Your task to perform on an android device: turn on notifications settings in the gmail app Image 0: 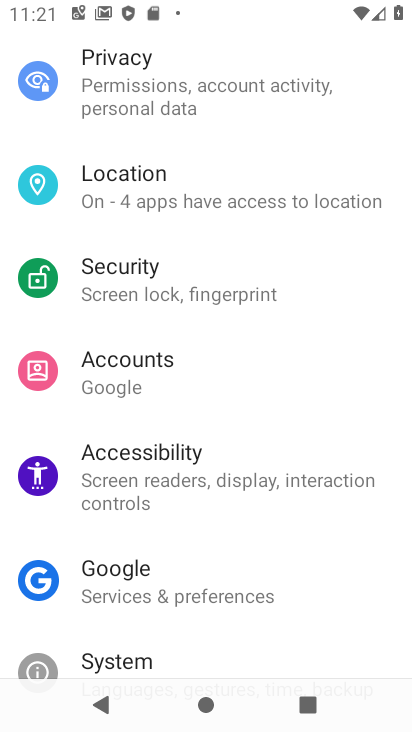
Step 0: press home button
Your task to perform on an android device: turn on notifications settings in the gmail app Image 1: 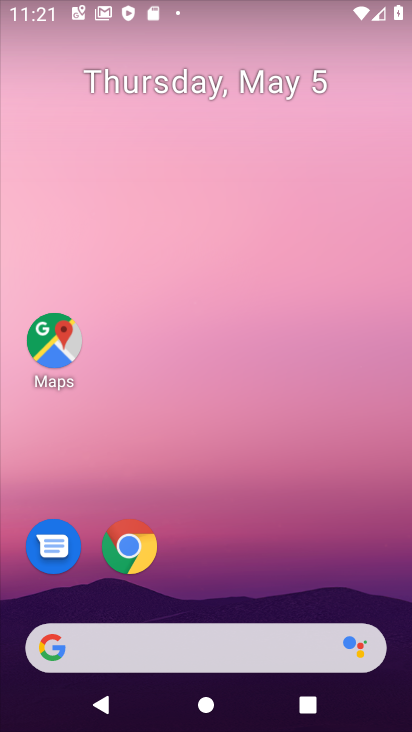
Step 1: drag from (260, 598) to (274, 209)
Your task to perform on an android device: turn on notifications settings in the gmail app Image 2: 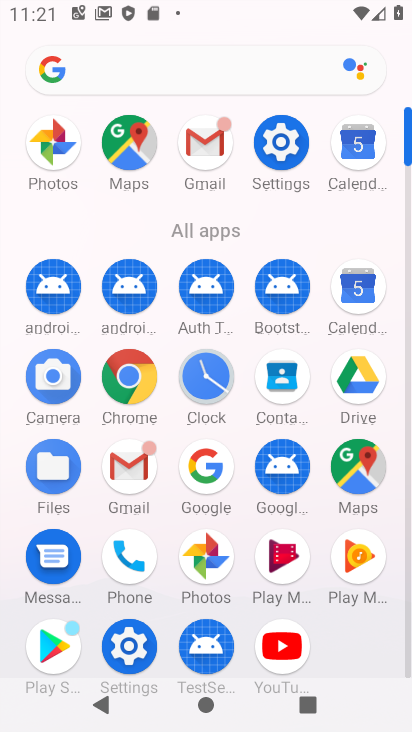
Step 2: click (218, 152)
Your task to perform on an android device: turn on notifications settings in the gmail app Image 3: 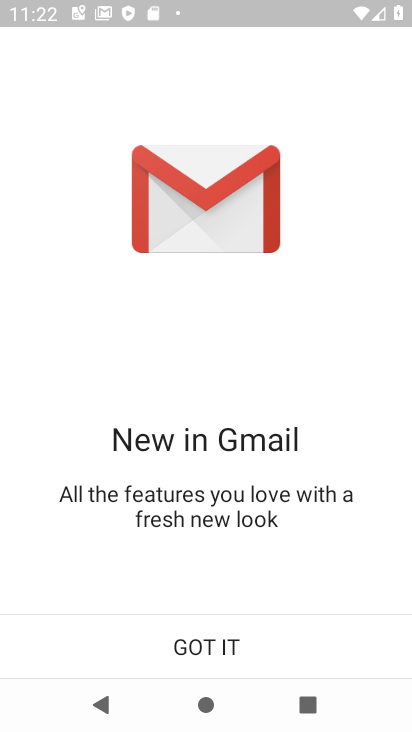
Step 3: click (203, 655)
Your task to perform on an android device: turn on notifications settings in the gmail app Image 4: 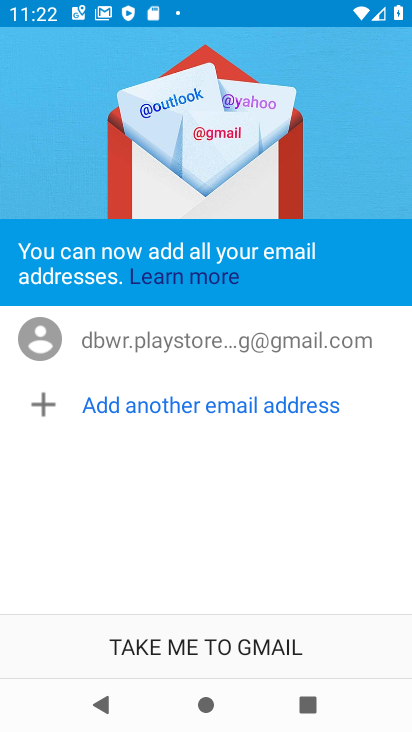
Step 4: click (254, 644)
Your task to perform on an android device: turn on notifications settings in the gmail app Image 5: 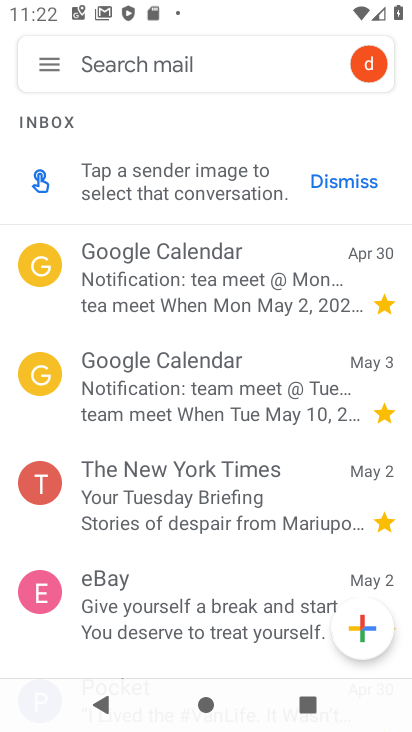
Step 5: click (51, 56)
Your task to perform on an android device: turn on notifications settings in the gmail app Image 6: 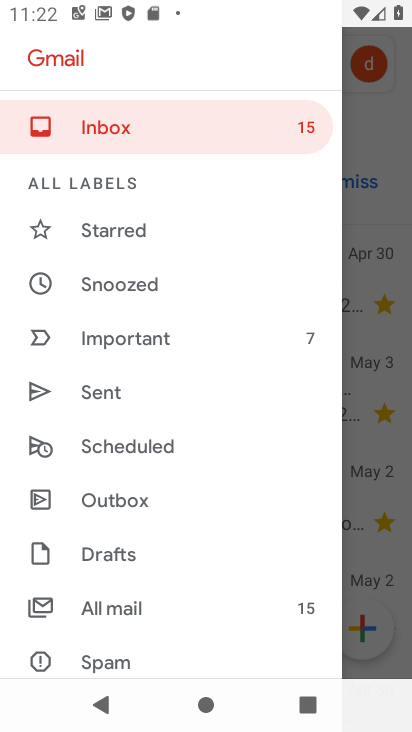
Step 6: drag from (139, 632) to (135, 297)
Your task to perform on an android device: turn on notifications settings in the gmail app Image 7: 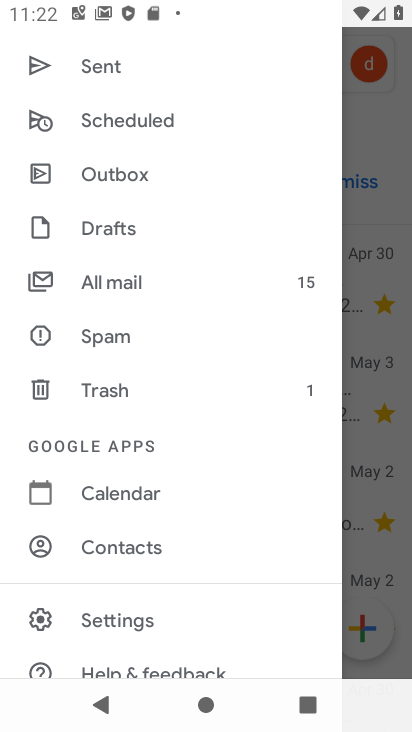
Step 7: click (122, 618)
Your task to perform on an android device: turn on notifications settings in the gmail app Image 8: 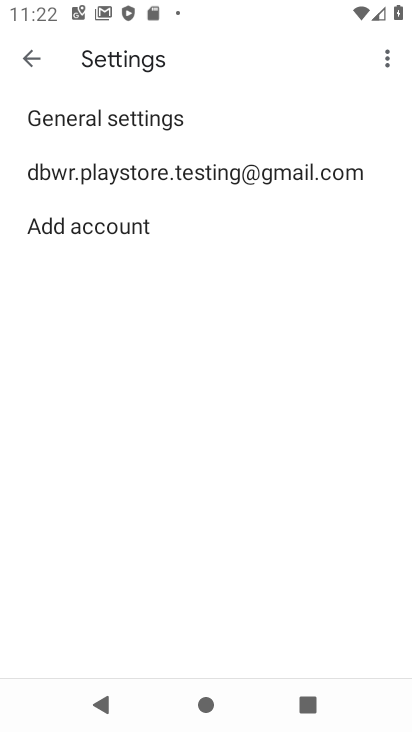
Step 8: click (152, 114)
Your task to perform on an android device: turn on notifications settings in the gmail app Image 9: 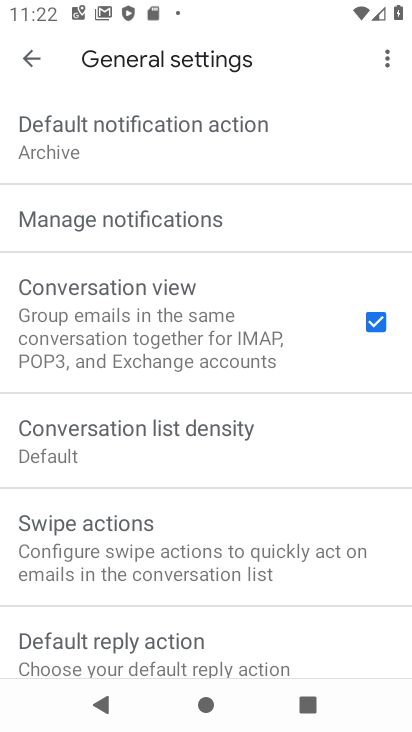
Step 9: click (158, 225)
Your task to perform on an android device: turn on notifications settings in the gmail app Image 10: 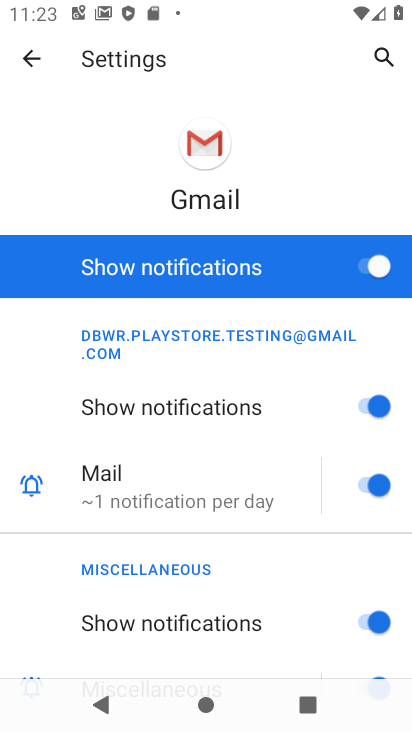
Step 10: task complete